Your task to perform on an android device: Turn on the flashlight Image 0: 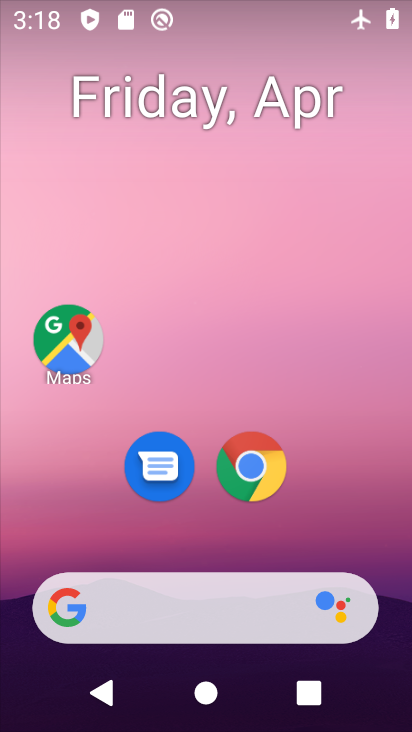
Step 0: drag from (239, 464) to (229, 146)
Your task to perform on an android device: Turn on the flashlight Image 1: 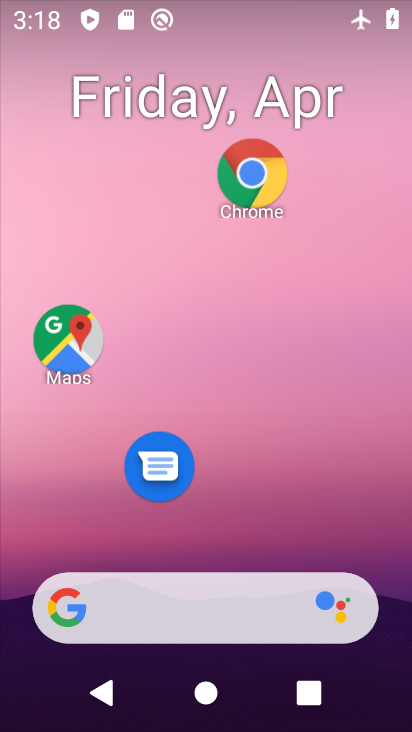
Step 1: drag from (260, 430) to (164, 113)
Your task to perform on an android device: Turn on the flashlight Image 2: 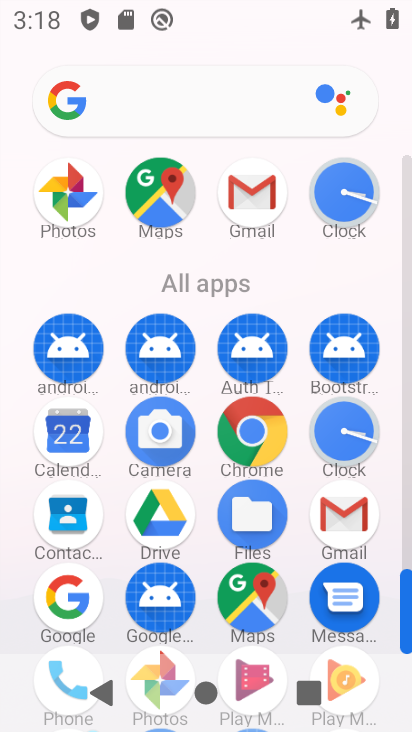
Step 2: drag from (221, 278) to (208, 84)
Your task to perform on an android device: Turn on the flashlight Image 3: 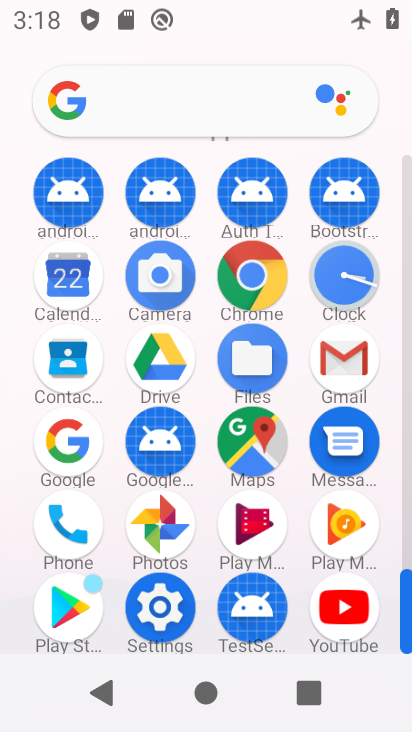
Step 3: click (169, 611)
Your task to perform on an android device: Turn on the flashlight Image 4: 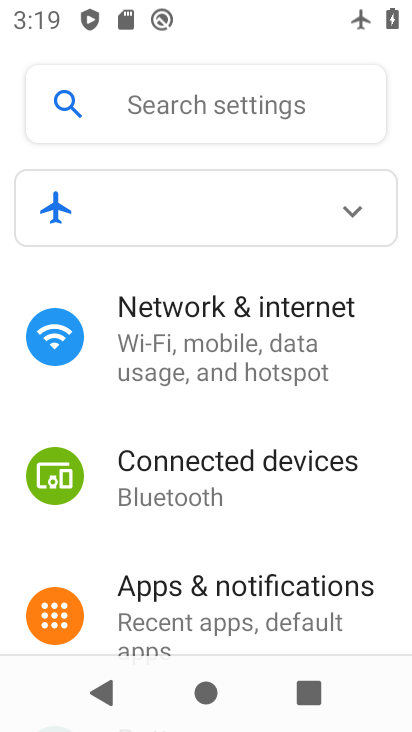
Step 4: task complete